Your task to perform on an android device: check data usage Image 0: 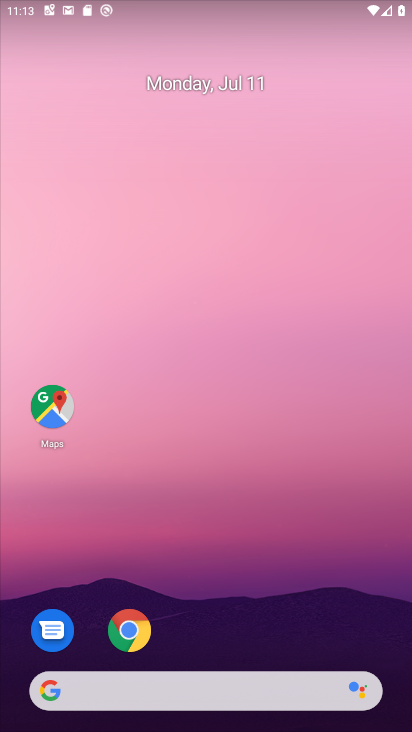
Step 0: drag from (215, 616) to (222, 182)
Your task to perform on an android device: check data usage Image 1: 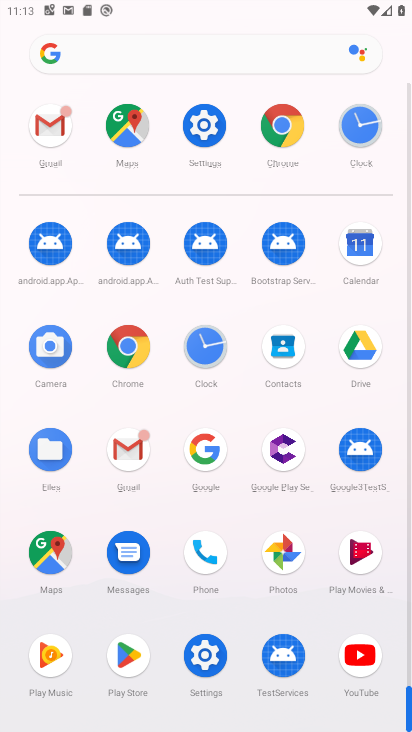
Step 1: click (207, 139)
Your task to perform on an android device: check data usage Image 2: 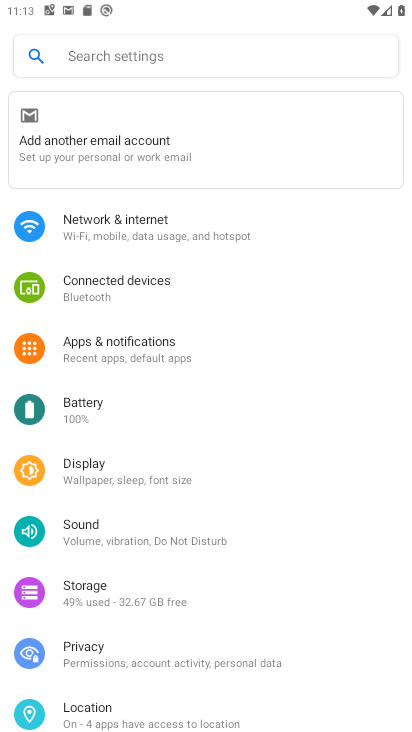
Step 2: click (156, 245)
Your task to perform on an android device: check data usage Image 3: 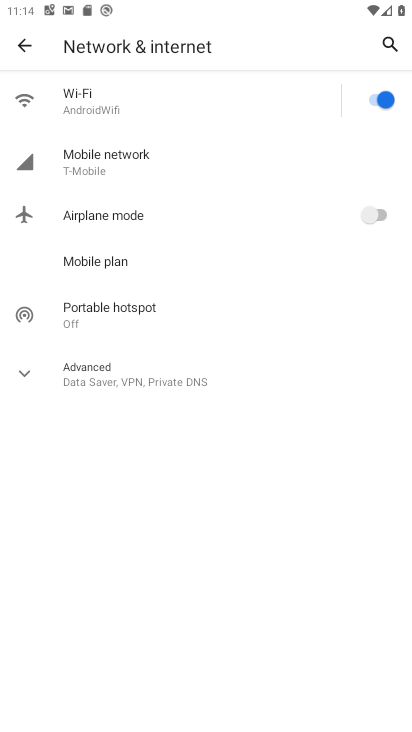
Step 3: click (135, 159)
Your task to perform on an android device: check data usage Image 4: 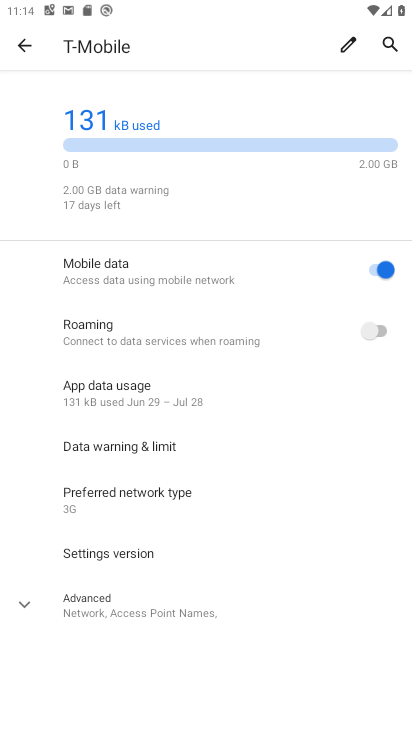
Step 4: click (145, 389)
Your task to perform on an android device: check data usage Image 5: 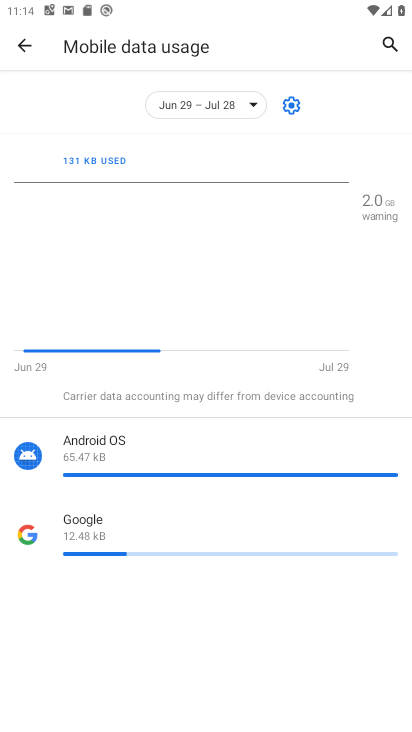
Step 5: task complete